Your task to perform on an android device: Open Google Maps Image 0: 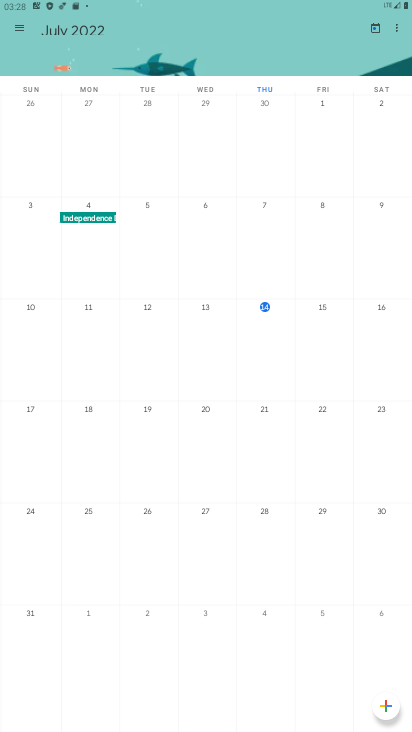
Step 0: press home button
Your task to perform on an android device: Open Google Maps Image 1: 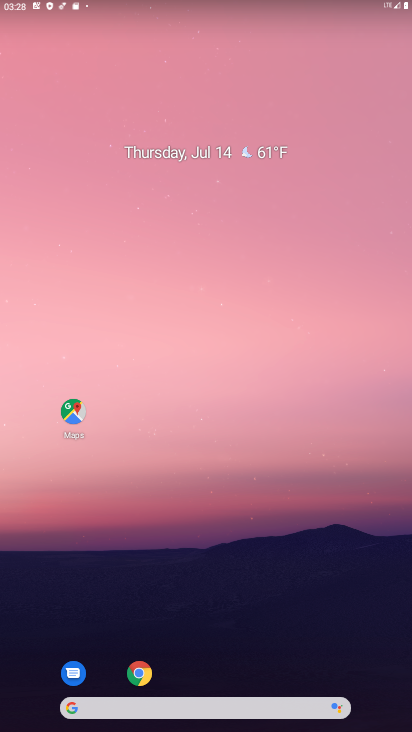
Step 1: click (63, 436)
Your task to perform on an android device: Open Google Maps Image 2: 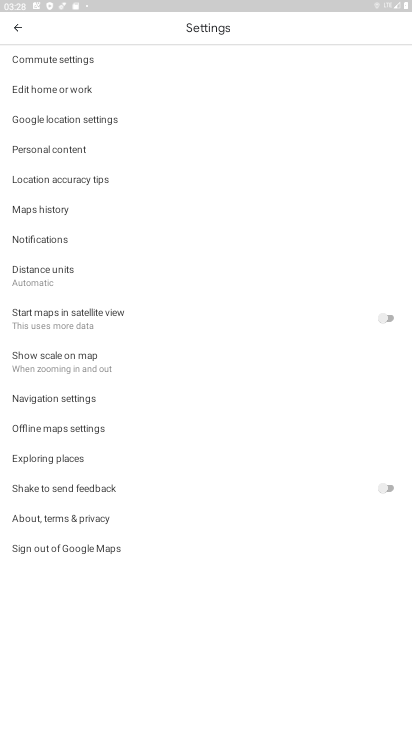
Step 2: task complete